Your task to perform on an android device: turn on airplane mode Image 0: 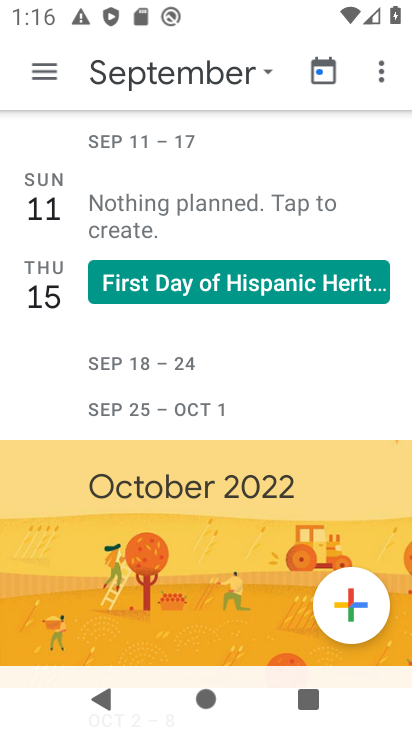
Step 0: press home button
Your task to perform on an android device: turn on airplane mode Image 1: 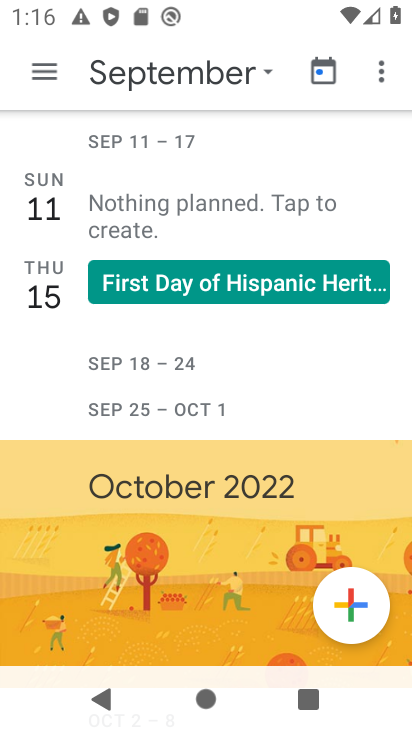
Step 1: press home button
Your task to perform on an android device: turn on airplane mode Image 2: 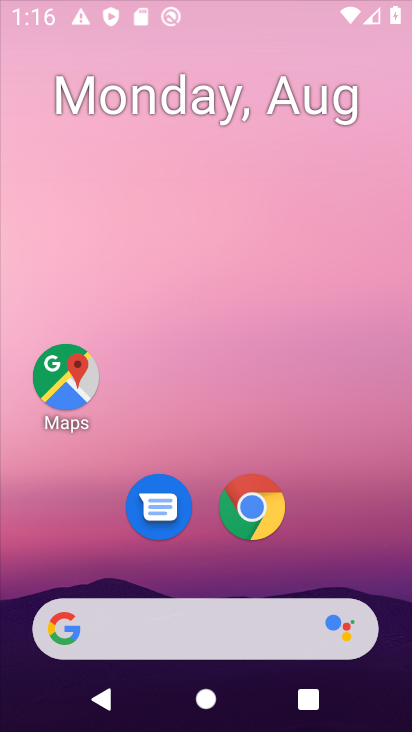
Step 2: drag from (215, 5) to (236, 602)
Your task to perform on an android device: turn on airplane mode Image 3: 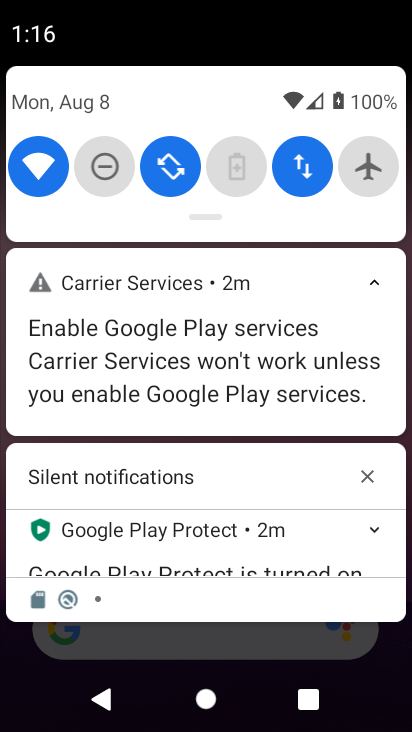
Step 3: click (372, 171)
Your task to perform on an android device: turn on airplane mode Image 4: 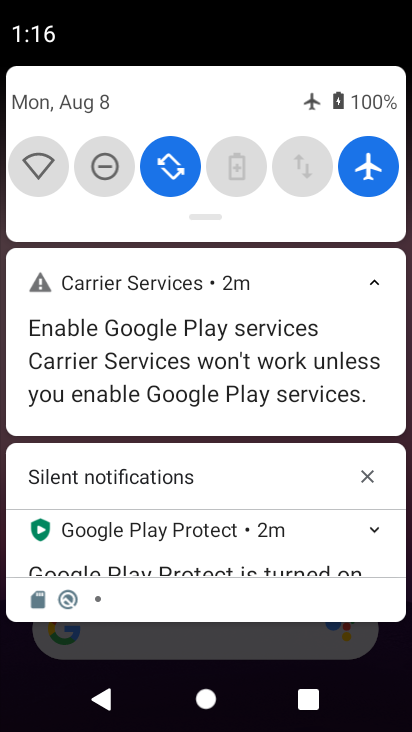
Step 4: task complete